Your task to perform on an android device: turn off picture-in-picture Image 0: 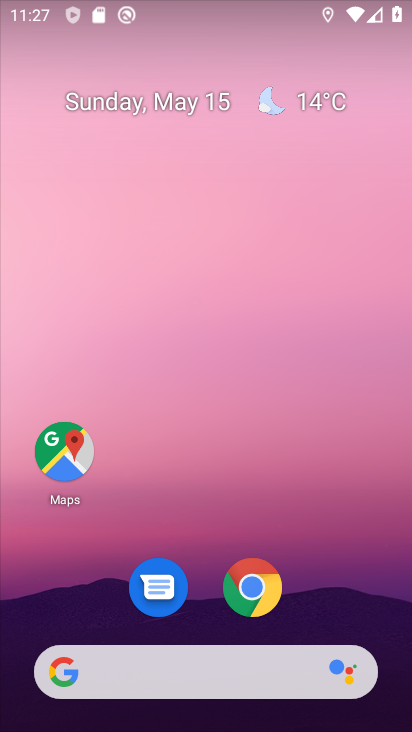
Step 0: click (246, 601)
Your task to perform on an android device: turn off picture-in-picture Image 1: 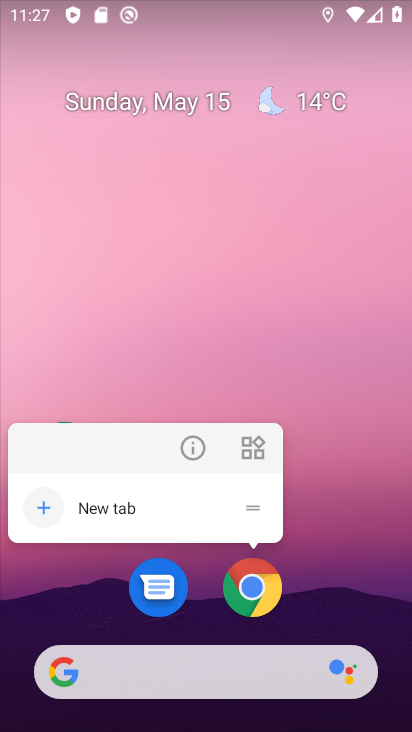
Step 1: click (178, 461)
Your task to perform on an android device: turn off picture-in-picture Image 2: 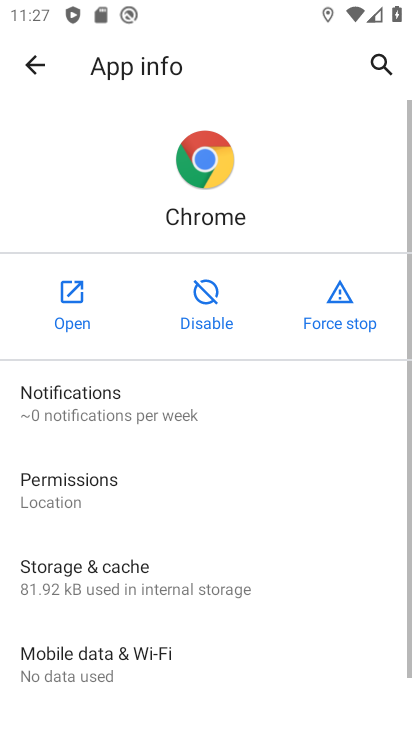
Step 2: drag from (150, 672) to (103, 195)
Your task to perform on an android device: turn off picture-in-picture Image 3: 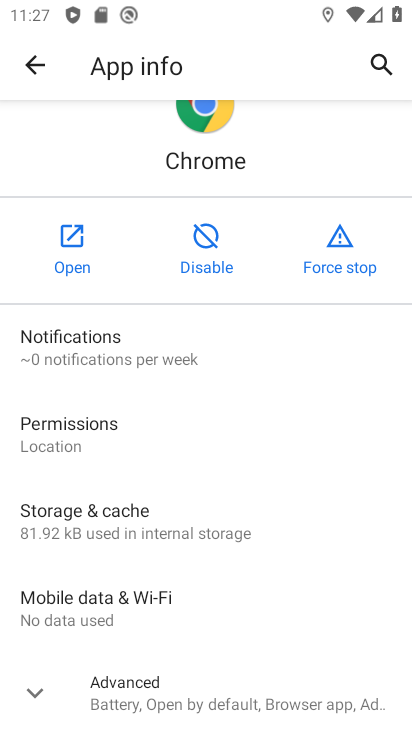
Step 3: click (128, 686)
Your task to perform on an android device: turn off picture-in-picture Image 4: 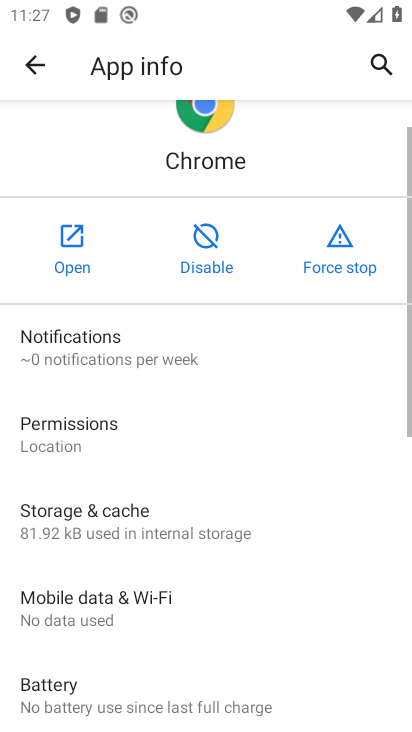
Step 4: drag from (113, 655) to (113, 206)
Your task to perform on an android device: turn off picture-in-picture Image 5: 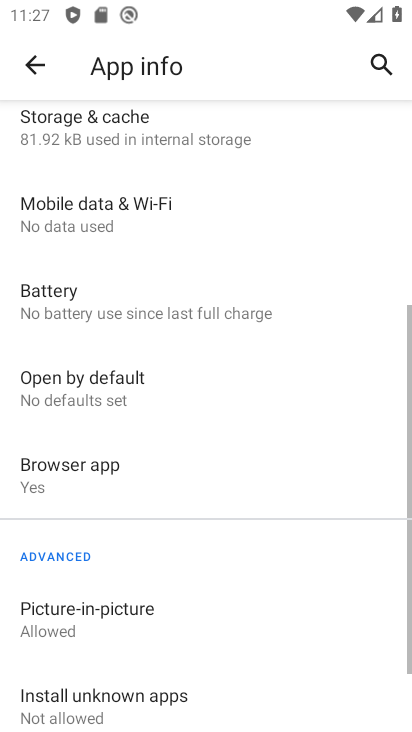
Step 5: click (120, 616)
Your task to perform on an android device: turn off picture-in-picture Image 6: 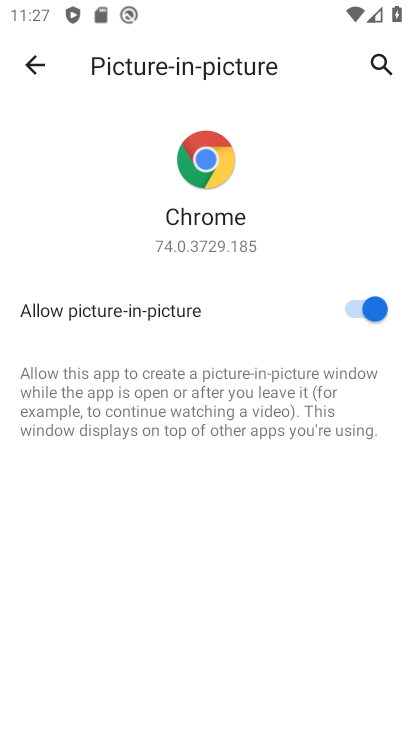
Step 6: click (352, 316)
Your task to perform on an android device: turn off picture-in-picture Image 7: 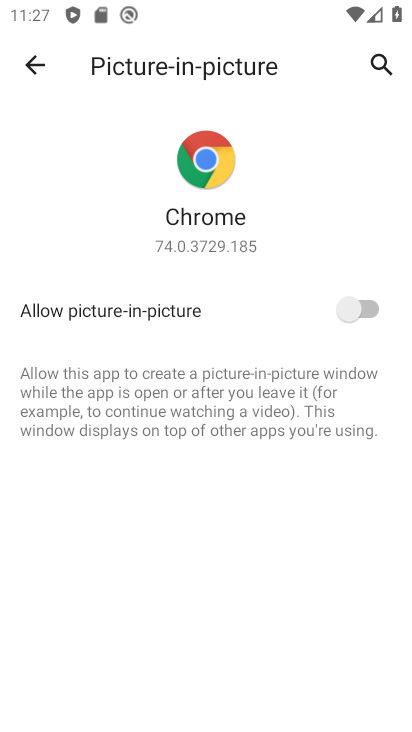
Step 7: task complete